Your task to perform on an android device: add a contact Image 0: 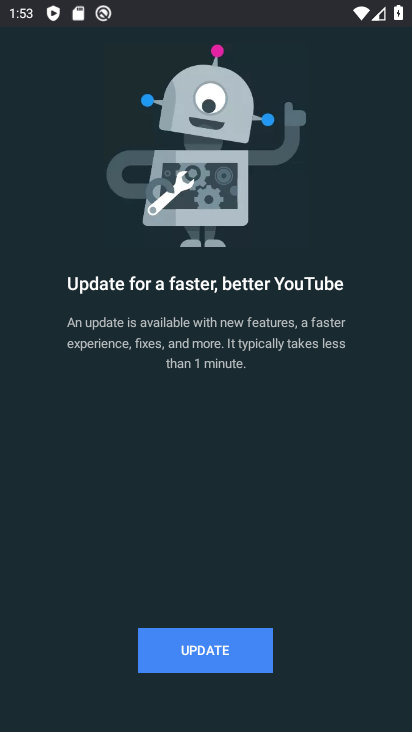
Step 0: press home button
Your task to perform on an android device: add a contact Image 1: 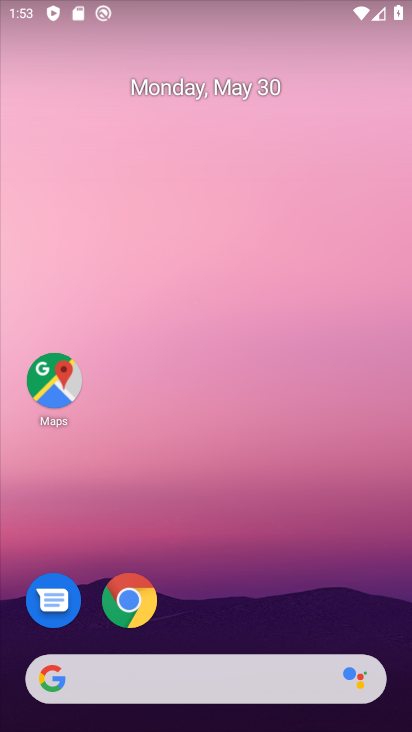
Step 1: drag from (235, 624) to (293, 48)
Your task to perform on an android device: add a contact Image 2: 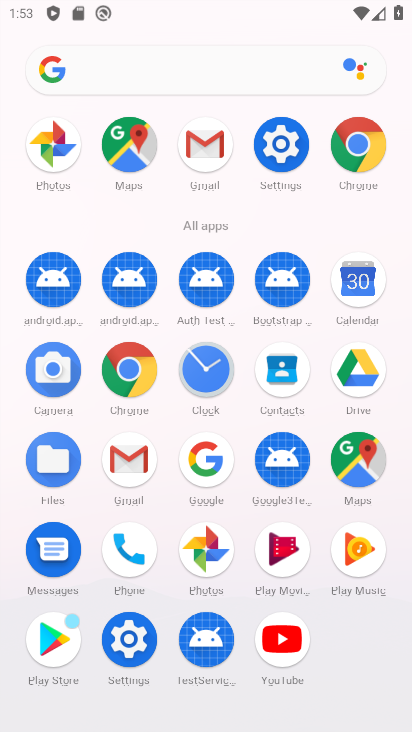
Step 2: click (286, 369)
Your task to perform on an android device: add a contact Image 3: 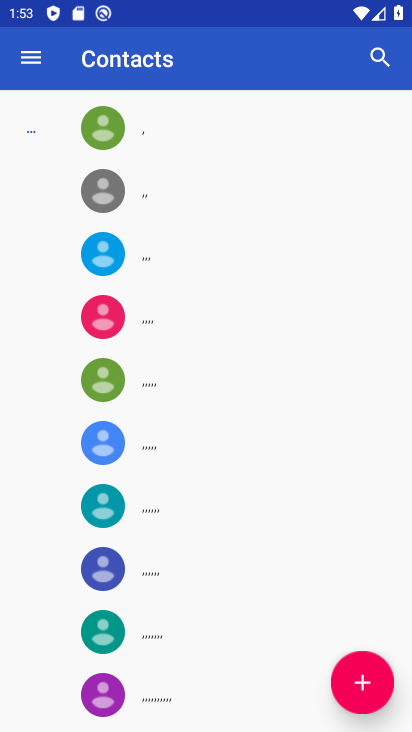
Step 3: click (365, 660)
Your task to perform on an android device: add a contact Image 4: 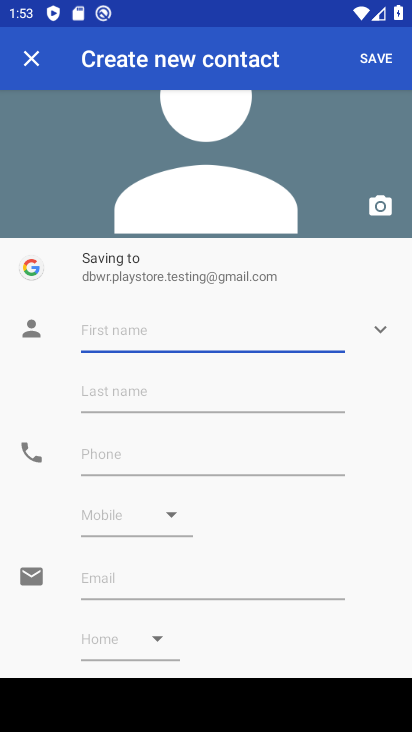
Step 4: click (223, 328)
Your task to perform on an android device: add a contact Image 5: 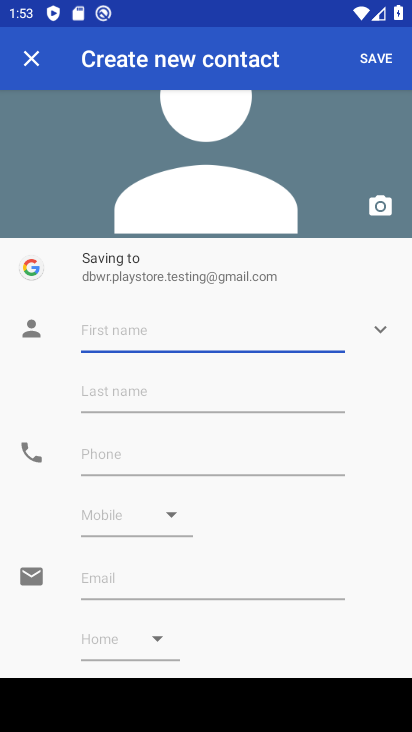
Step 5: type "fggrg"
Your task to perform on an android device: add a contact Image 6: 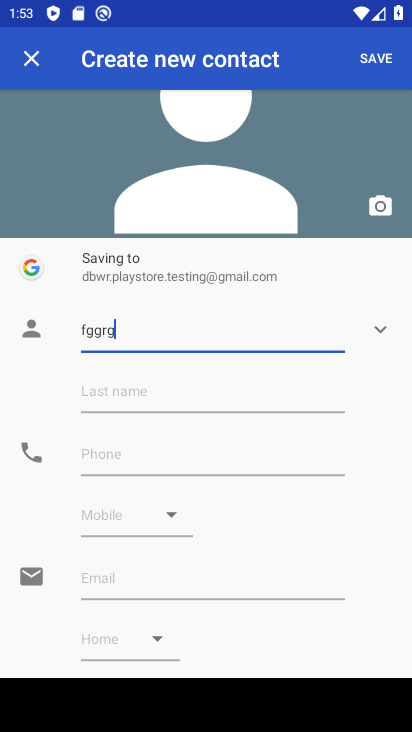
Step 6: click (141, 462)
Your task to perform on an android device: add a contact Image 7: 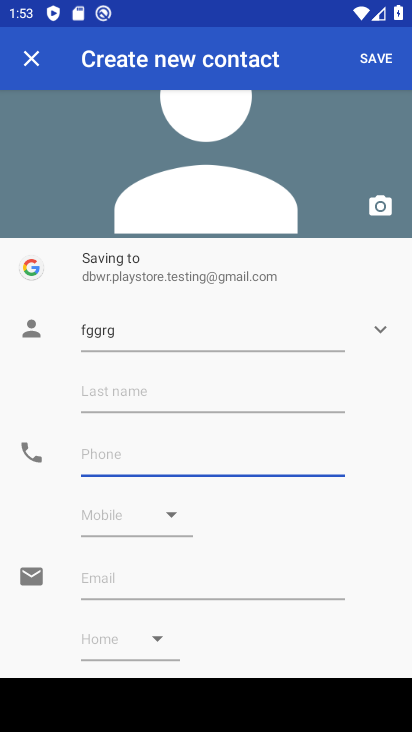
Step 7: type "456467568"
Your task to perform on an android device: add a contact Image 8: 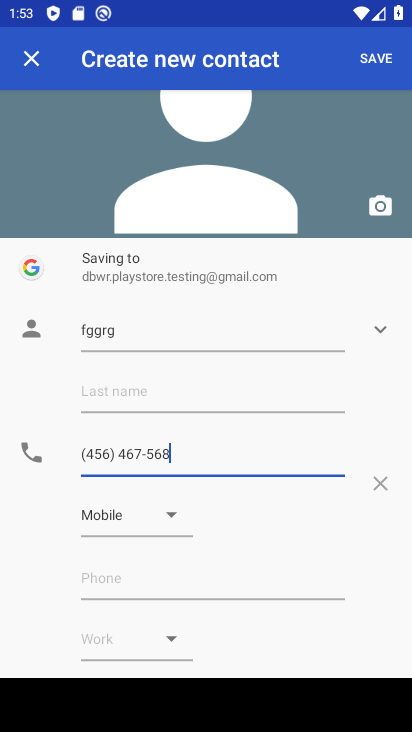
Step 8: click (380, 60)
Your task to perform on an android device: add a contact Image 9: 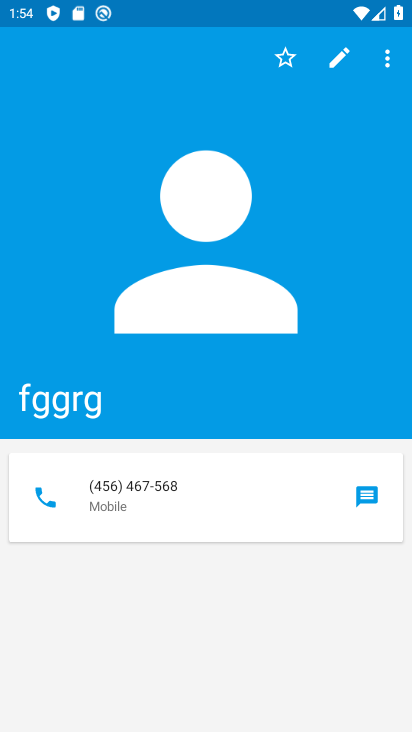
Step 9: task complete